Your task to perform on an android device: change text size in settings app Image 0: 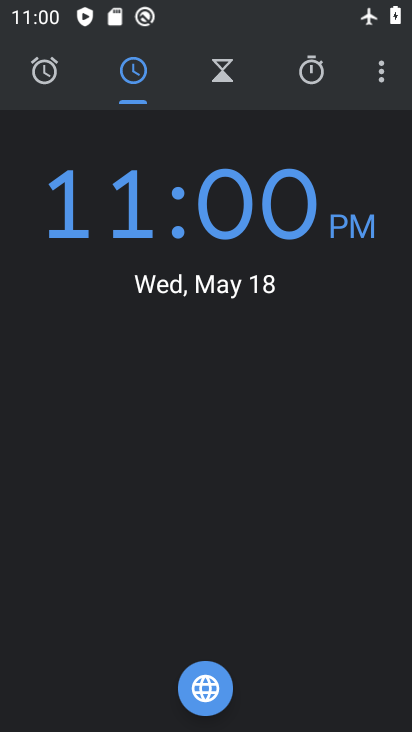
Step 0: press home button
Your task to perform on an android device: change text size in settings app Image 1: 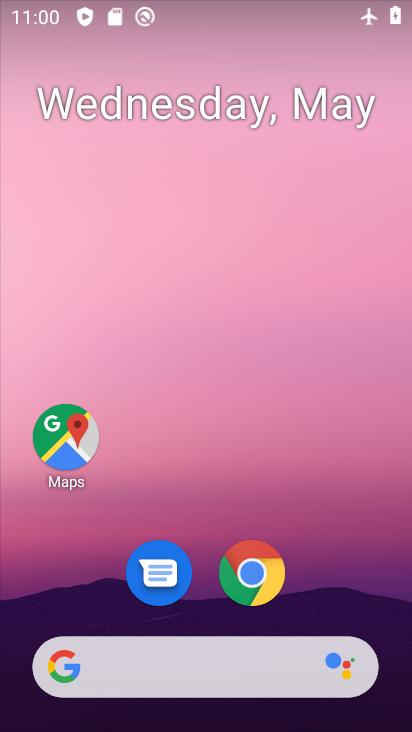
Step 1: drag from (291, 5) to (243, 437)
Your task to perform on an android device: change text size in settings app Image 2: 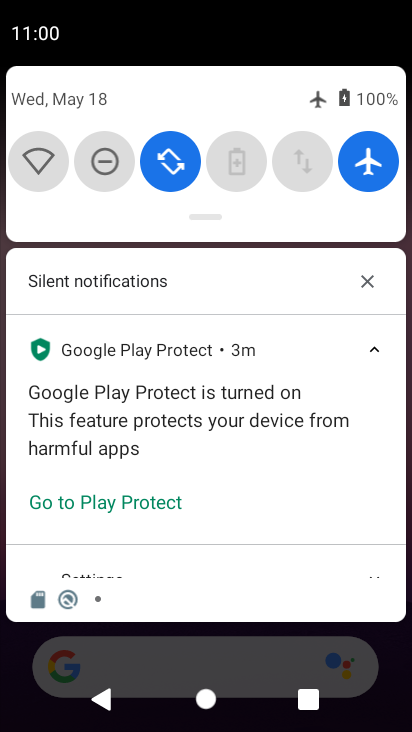
Step 2: drag from (262, 87) to (241, 440)
Your task to perform on an android device: change text size in settings app Image 3: 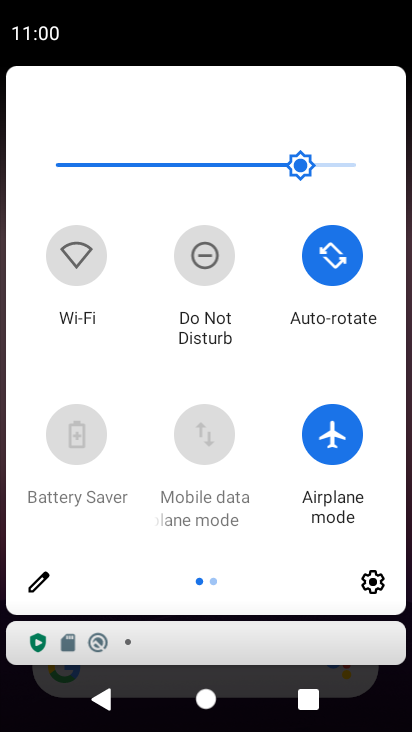
Step 3: press home button
Your task to perform on an android device: change text size in settings app Image 4: 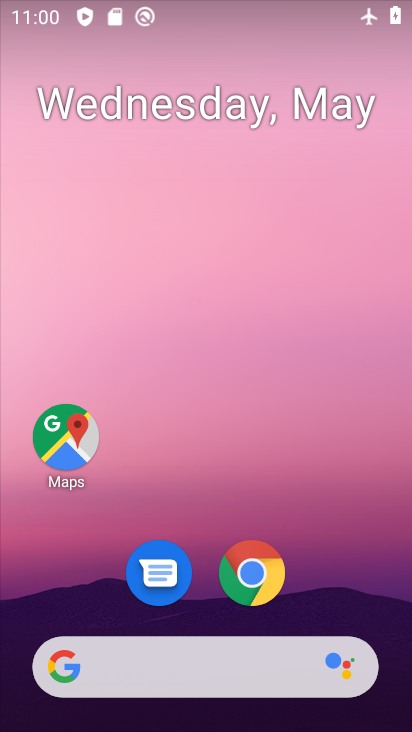
Step 4: drag from (373, 576) to (358, 99)
Your task to perform on an android device: change text size in settings app Image 5: 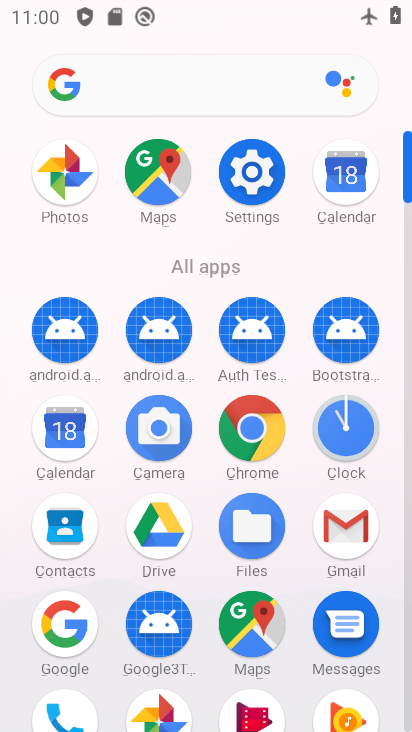
Step 5: click (260, 177)
Your task to perform on an android device: change text size in settings app Image 6: 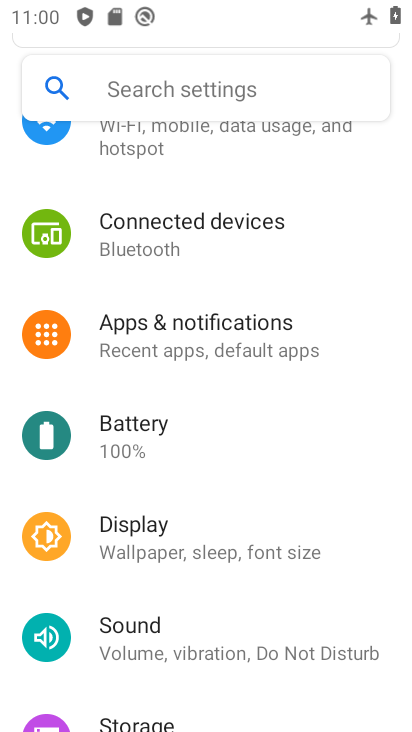
Step 6: drag from (366, 577) to (377, 395)
Your task to perform on an android device: change text size in settings app Image 7: 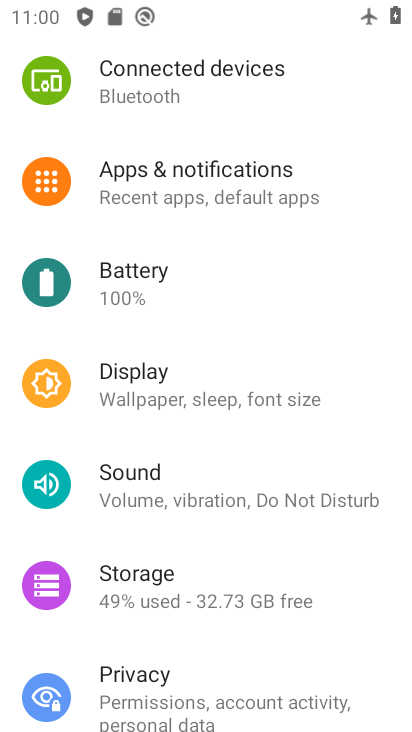
Step 7: drag from (354, 607) to (350, 370)
Your task to perform on an android device: change text size in settings app Image 8: 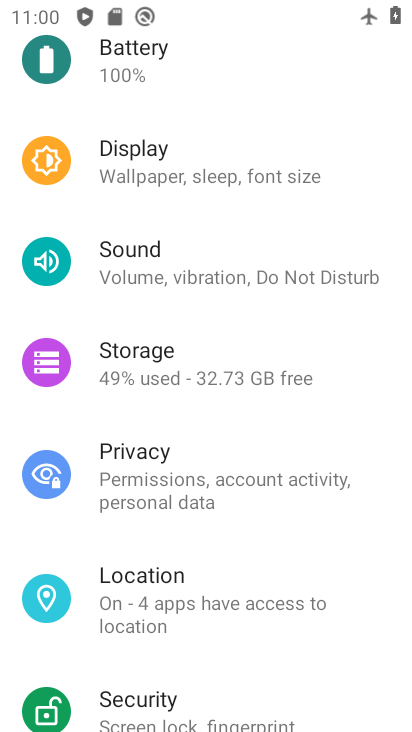
Step 8: drag from (336, 610) to (351, 466)
Your task to perform on an android device: change text size in settings app Image 9: 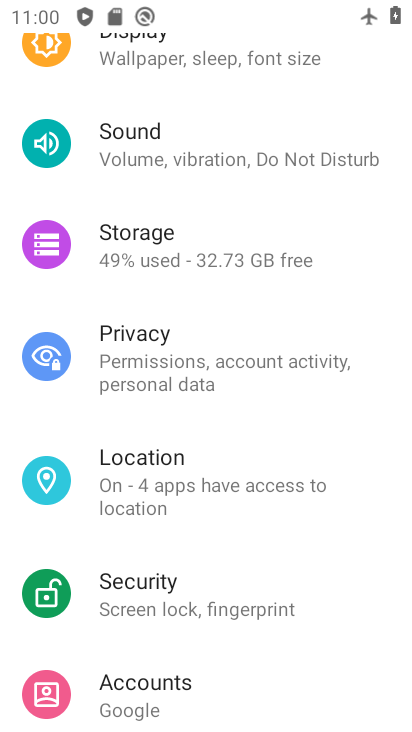
Step 9: drag from (350, 605) to (381, 471)
Your task to perform on an android device: change text size in settings app Image 10: 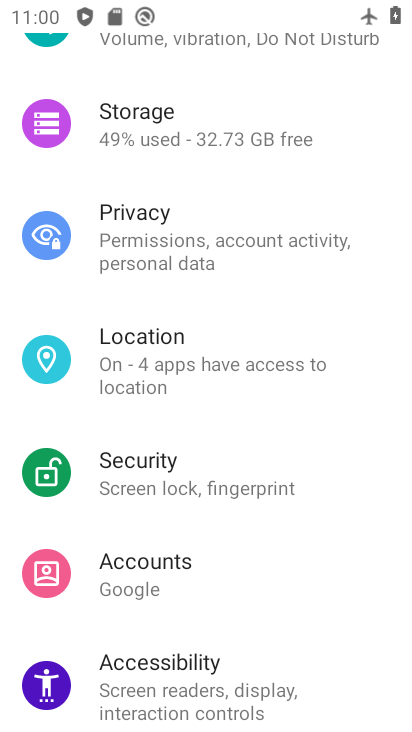
Step 10: drag from (341, 645) to (334, 460)
Your task to perform on an android device: change text size in settings app Image 11: 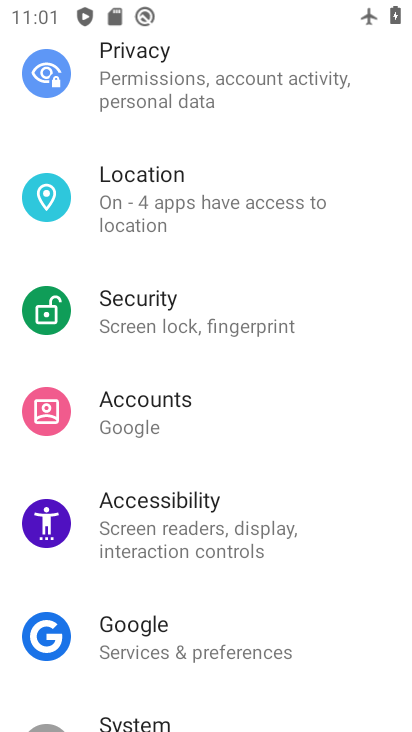
Step 11: drag from (341, 550) to (352, 495)
Your task to perform on an android device: change text size in settings app Image 12: 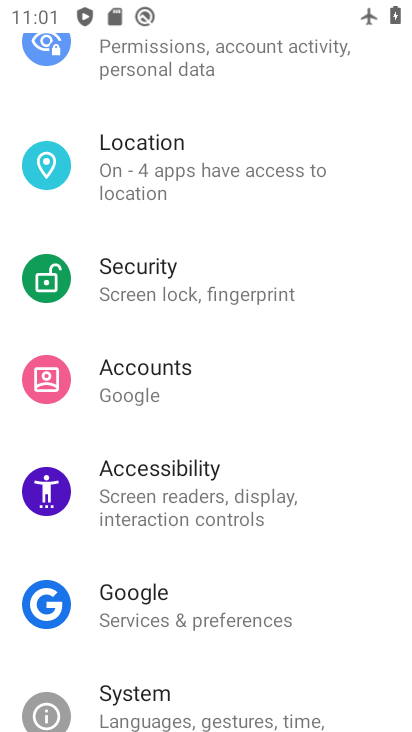
Step 12: drag from (359, 603) to (358, 457)
Your task to perform on an android device: change text size in settings app Image 13: 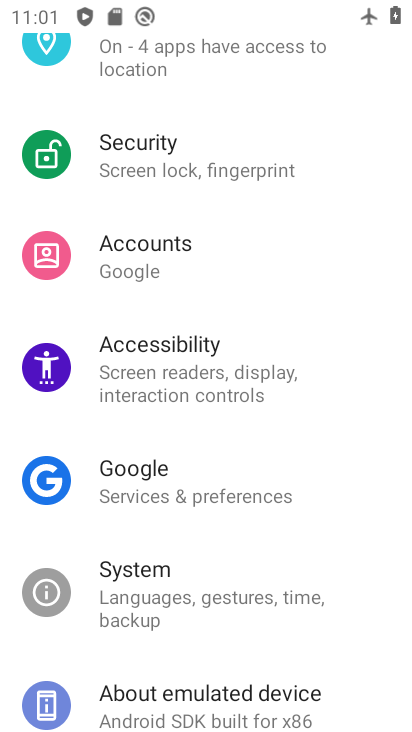
Step 13: drag from (363, 586) to (340, 392)
Your task to perform on an android device: change text size in settings app Image 14: 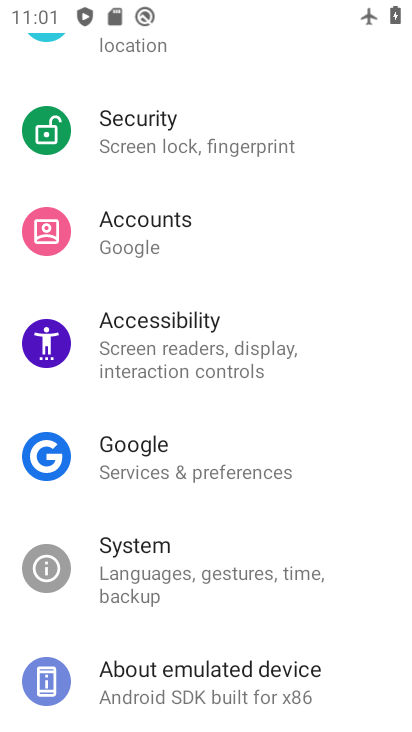
Step 14: drag from (356, 593) to (351, 426)
Your task to perform on an android device: change text size in settings app Image 15: 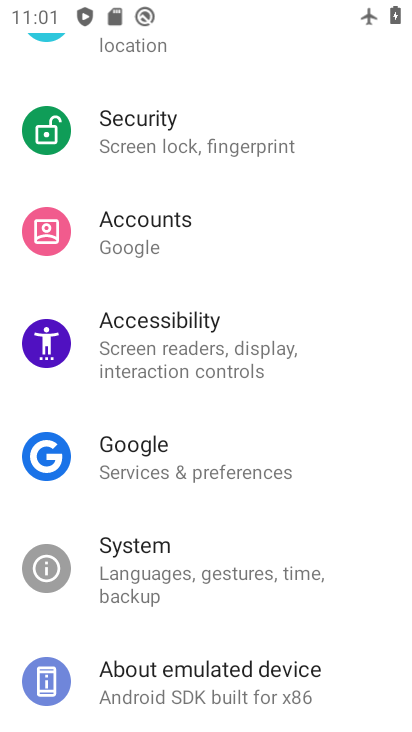
Step 15: drag from (350, 308) to (341, 483)
Your task to perform on an android device: change text size in settings app Image 16: 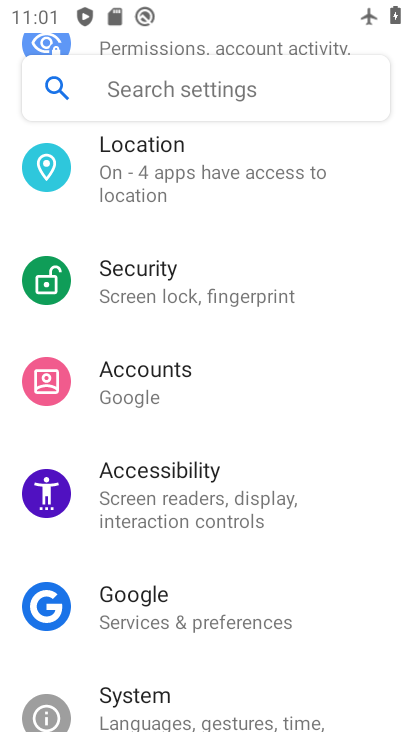
Step 16: drag from (335, 314) to (339, 451)
Your task to perform on an android device: change text size in settings app Image 17: 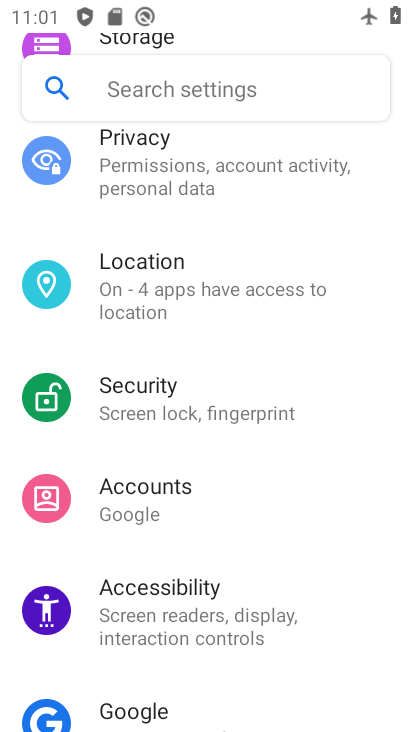
Step 17: drag from (353, 346) to (356, 417)
Your task to perform on an android device: change text size in settings app Image 18: 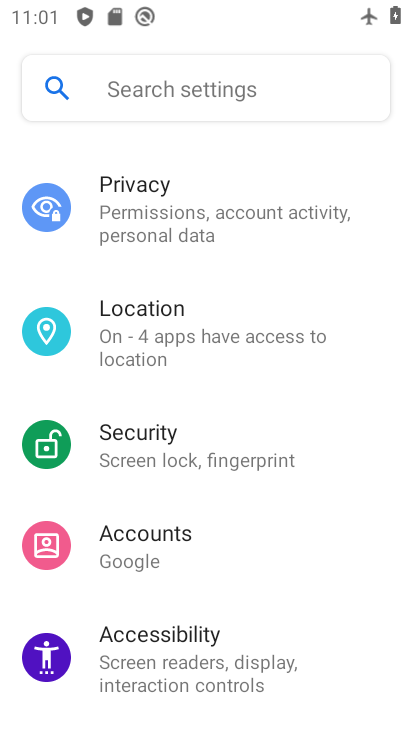
Step 18: drag from (357, 258) to (353, 437)
Your task to perform on an android device: change text size in settings app Image 19: 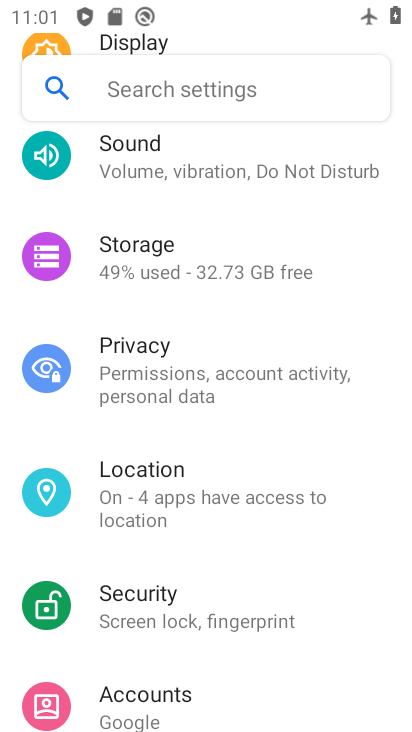
Step 19: drag from (367, 233) to (355, 370)
Your task to perform on an android device: change text size in settings app Image 20: 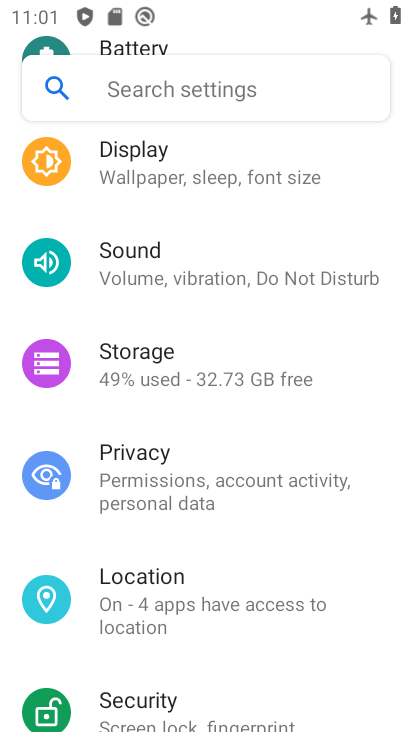
Step 20: drag from (343, 232) to (349, 368)
Your task to perform on an android device: change text size in settings app Image 21: 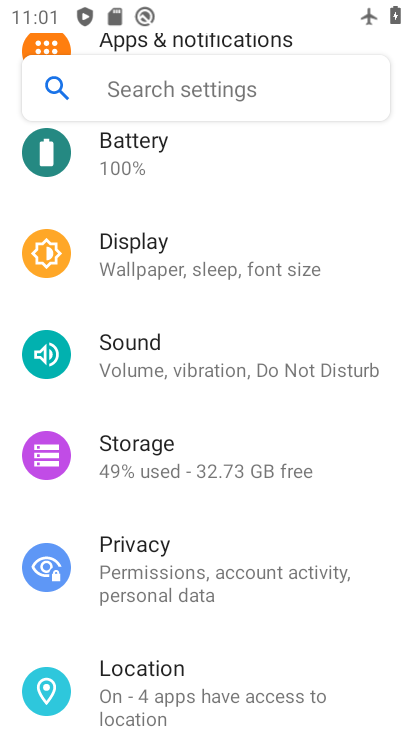
Step 21: drag from (351, 223) to (346, 357)
Your task to perform on an android device: change text size in settings app Image 22: 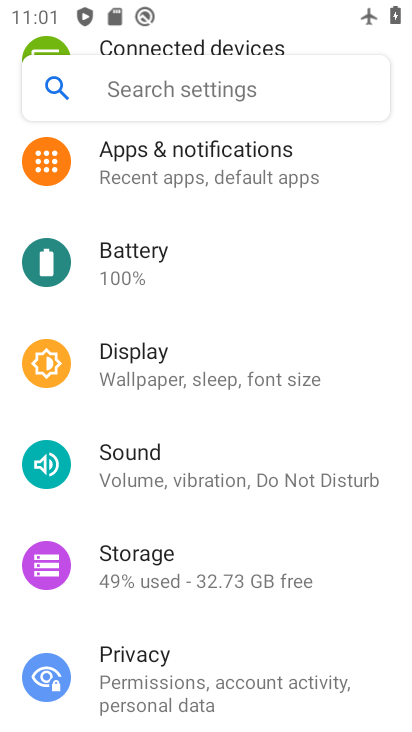
Step 22: click (302, 389)
Your task to perform on an android device: change text size in settings app Image 23: 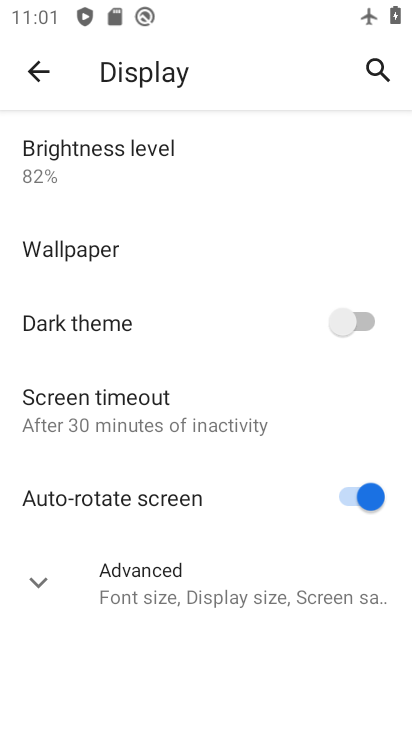
Step 23: click (221, 583)
Your task to perform on an android device: change text size in settings app Image 24: 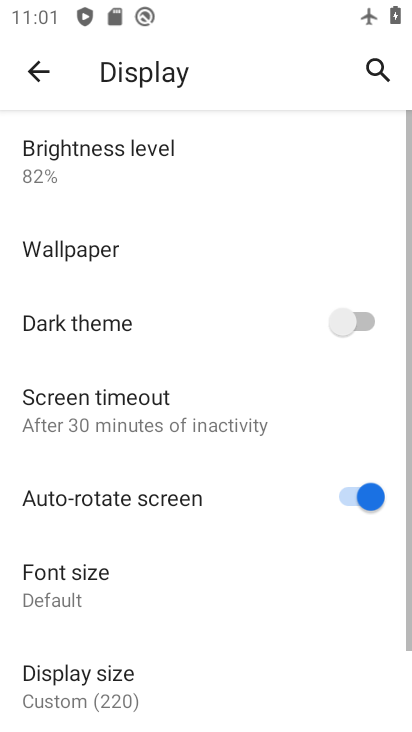
Step 24: drag from (262, 513) to (261, 322)
Your task to perform on an android device: change text size in settings app Image 25: 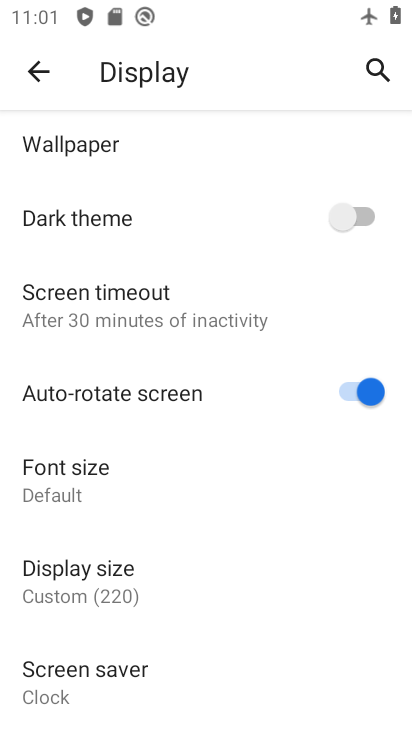
Step 25: click (132, 454)
Your task to perform on an android device: change text size in settings app Image 26: 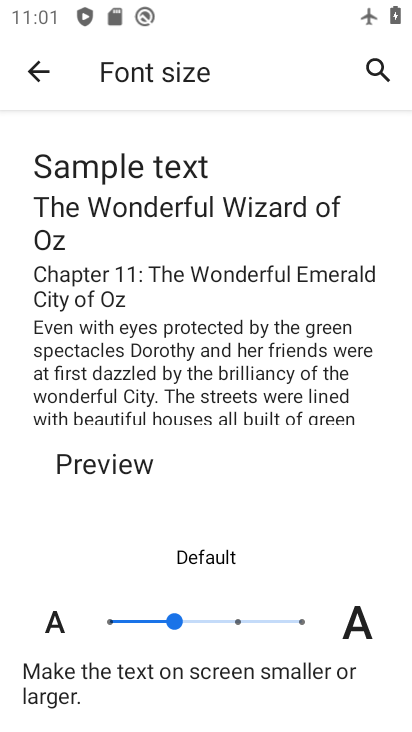
Step 26: click (236, 622)
Your task to perform on an android device: change text size in settings app Image 27: 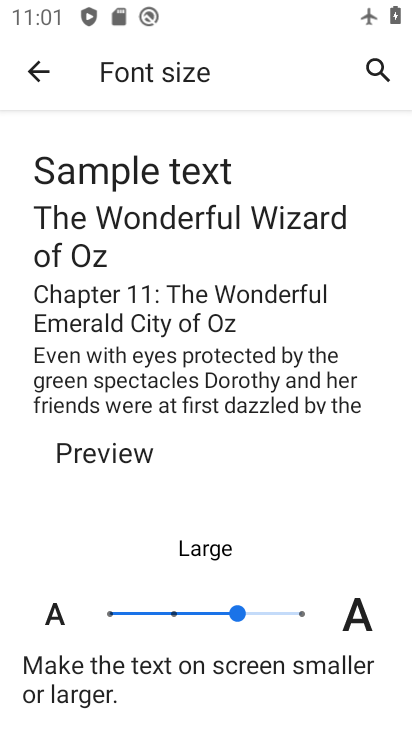
Step 27: task complete